Your task to perform on an android device: open a bookmark in the chrome app Image 0: 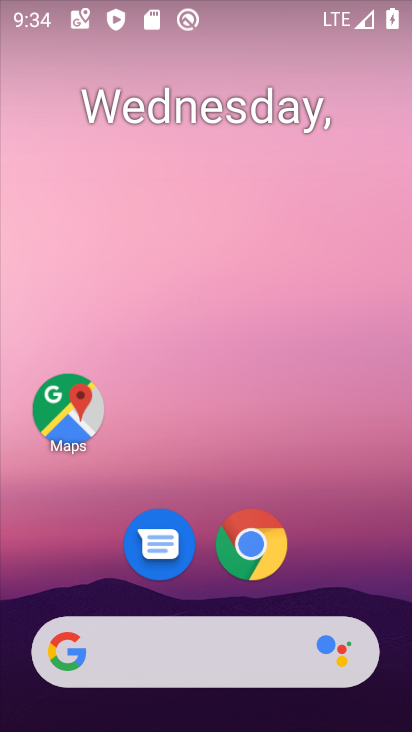
Step 0: click (261, 554)
Your task to perform on an android device: open a bookmark in the chrome app Image 1: 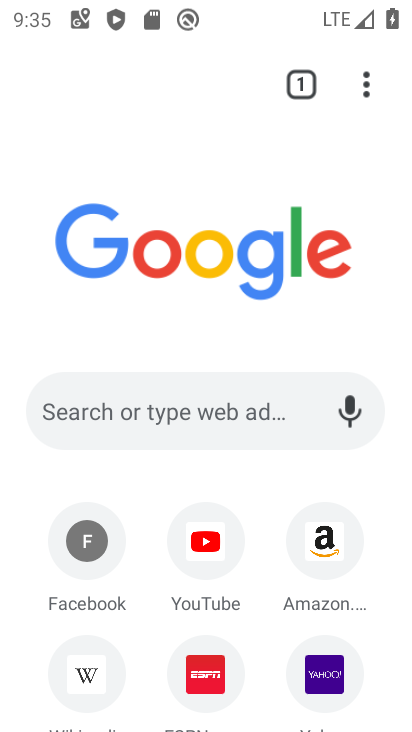
Step 1: click (376, 83)
Your task to perform on an android device: open a bookmark in the chrome app Image 2: 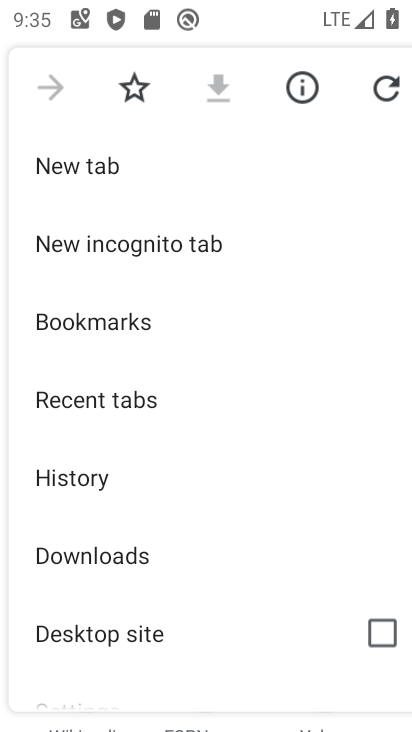
Step 2: click (150, 333)
Your task to perform on an android device: open a bookmark in the chrome app Image 3: 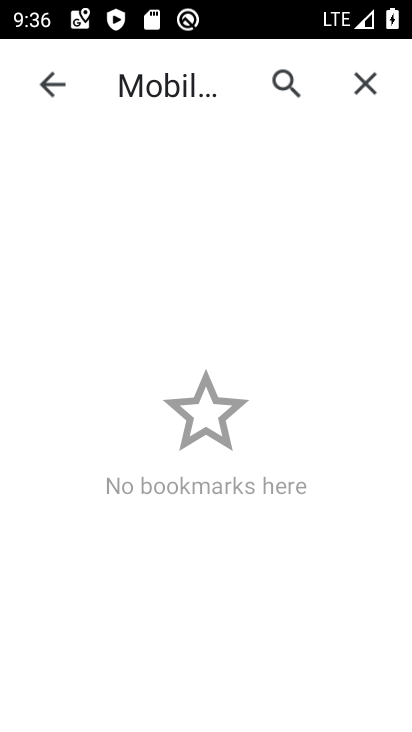
Step 3: task complete